Your task to perform on an android device: toggle sleep mode Image 0: 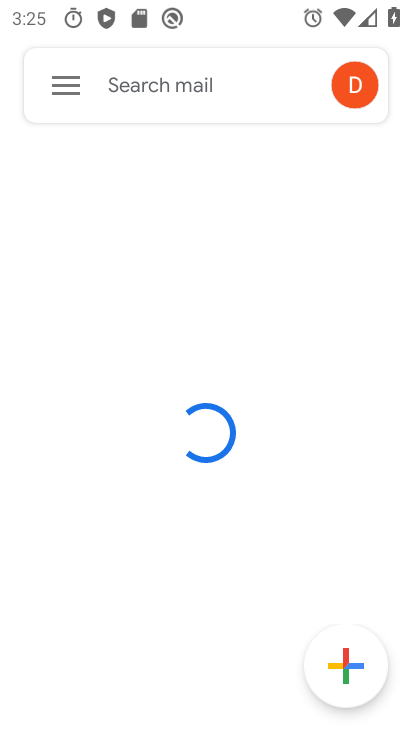
Step 0: press home button
Your task to perform on an android device: toggle sleep mode Image 1: 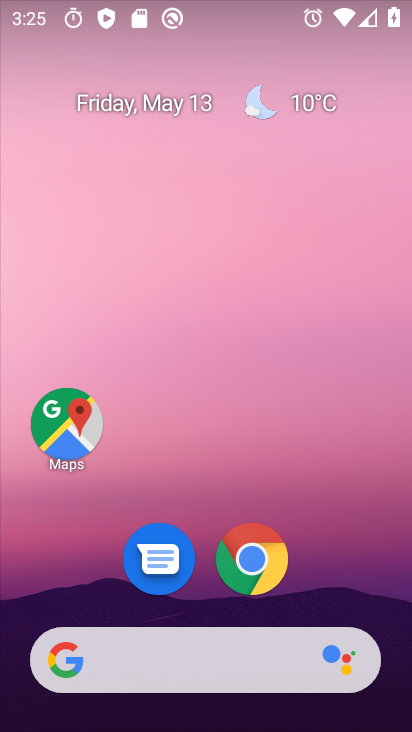
Step 1: drag from (224, 607) to (224, 273)
Your task to perform on an android device: toggle sleep mode Image 2: 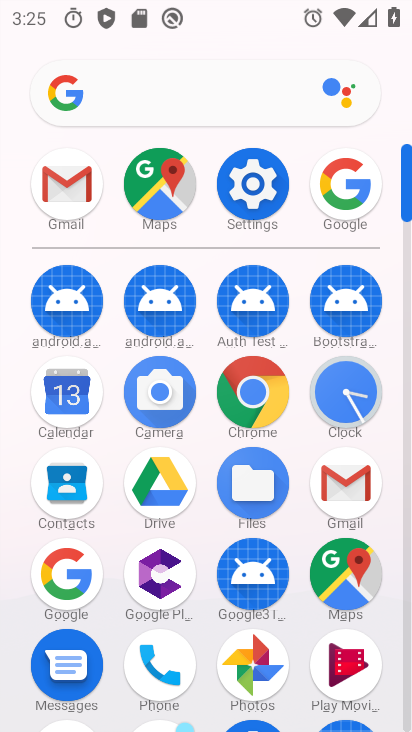
Step 2: click (250, 205)
Your task to perform on an android device: toggle sleep mode Image 3: 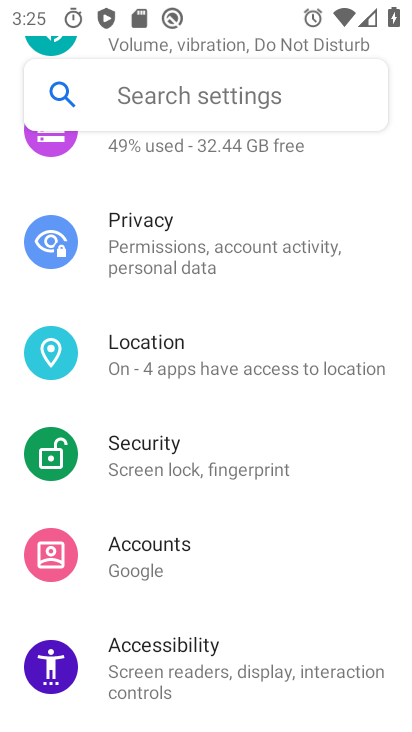
Step 3: drag from (212, 238) to (252, 521)
Your task to perform on an android device: toggle sleep mode Image 4: 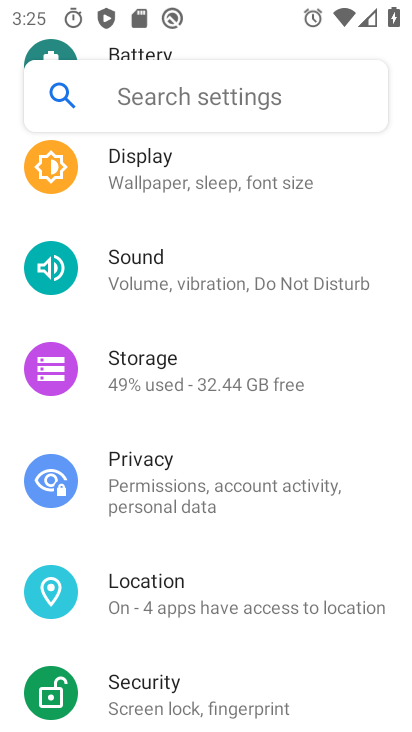
Step 4: drag from (218, 247) to (250, 443)
Your task to perform on an android device: toggle sleep mode Image 5: 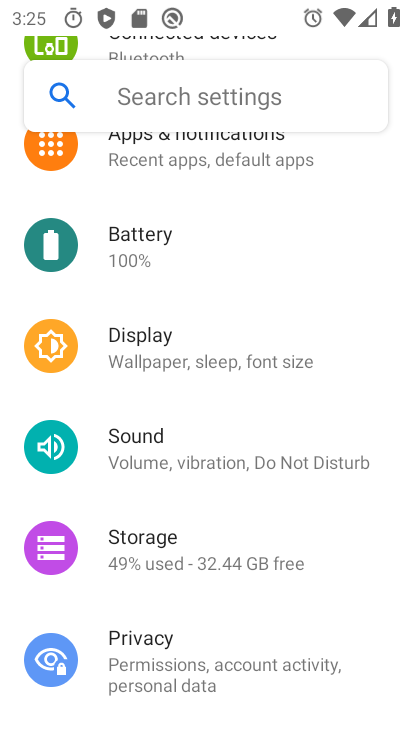
Step 5: click (205, 350)
Your task to perform on an android device: toggle sleep mode Image 6: 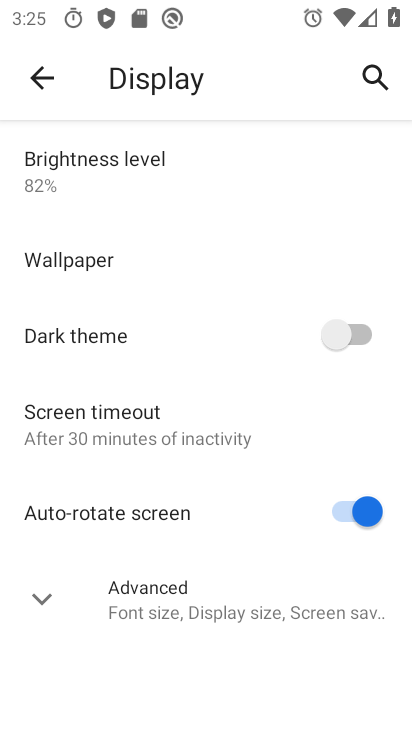
Step 6: click (196, 444)
Your task to perform on an android device: toggle sleep mode Image 7: 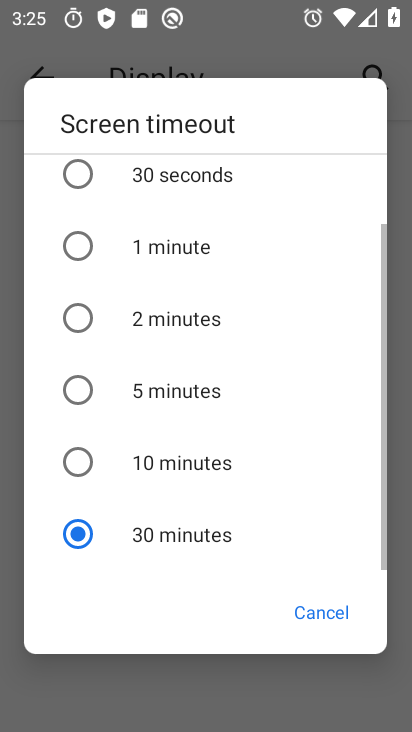
Step 7: click (181, 395)
Your task to perform on an android device: toggle sleep mode Image 8: 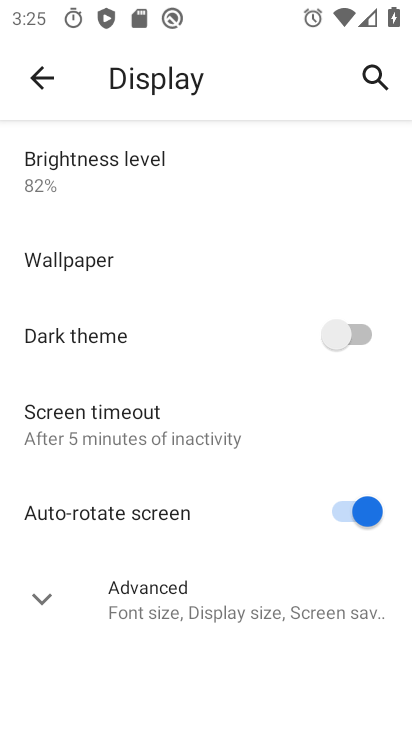
Step 8: task complete